Your task to perform on an android device: Turn on the flashlight Image 0: 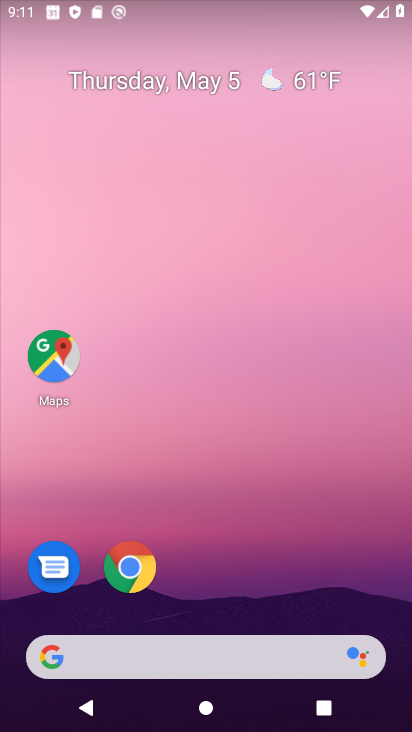
Step 0: drag from (225, 682) to (225, 128)
Your task to perform on an android device: Turn on the flashlight Image 1: 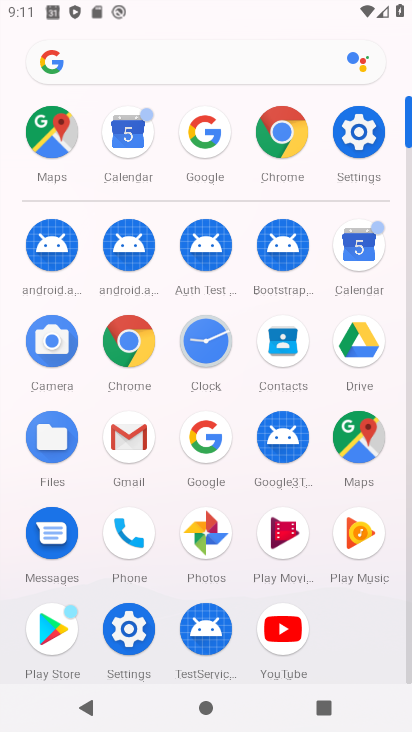
Step 1: click (354, 132)
Your task to perform on an android device: Turn on the flashlight Image 2: 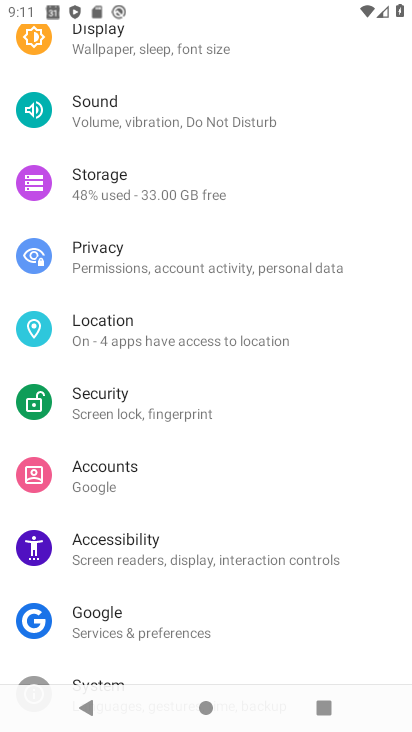
Step 2: task complete